Your task to perform on an android device: Open Google Chrome and open the bookmarks view Image 0: 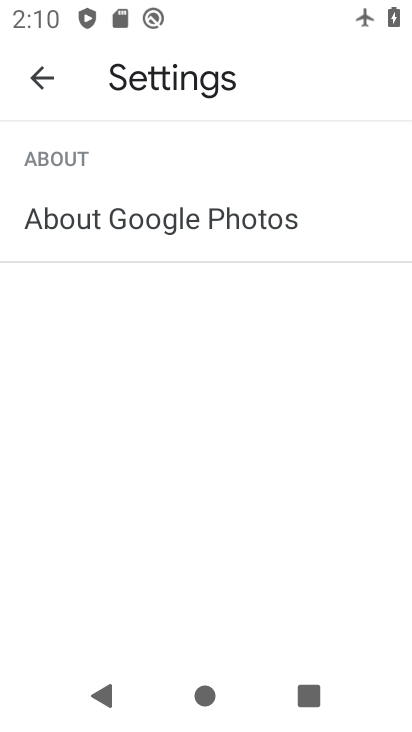
Step 0: press home button
Your task to perform on an android device: Open Google Chrome and open the bookmarks view Image 1: 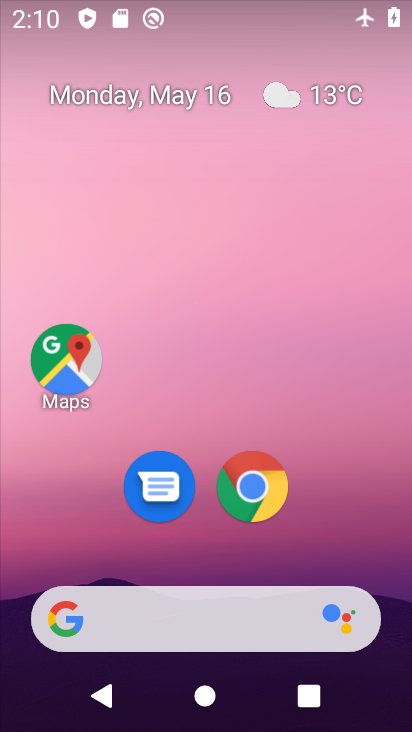
Step 1: drag from (377, 517) to (321, 56)
Your task to perform on an android device: Open Google Chrome and open the bookmarks view Image 2: 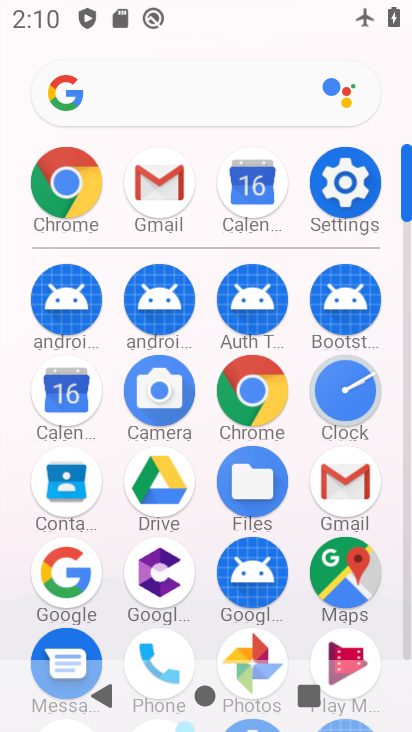
Step 2: click (46, 179)
Your task to perform on an android device: Open Google Chrome and open the bookmarks view Image 3: 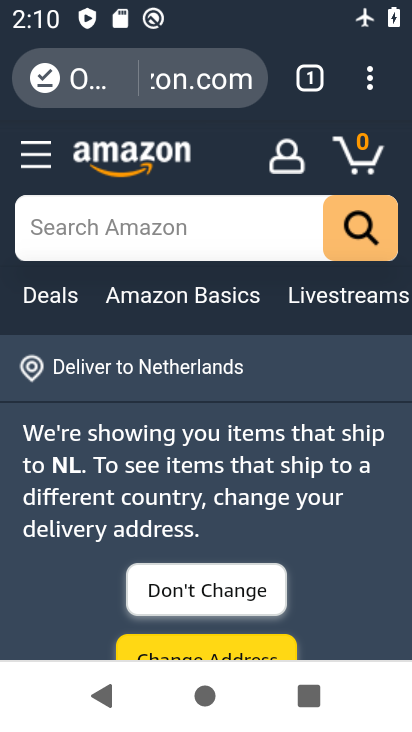
Step 3: drag from (368, 77) to (142, 308)
Your task to perform on an android device: Open Google Chrome and open the bookmarks view Image 4: 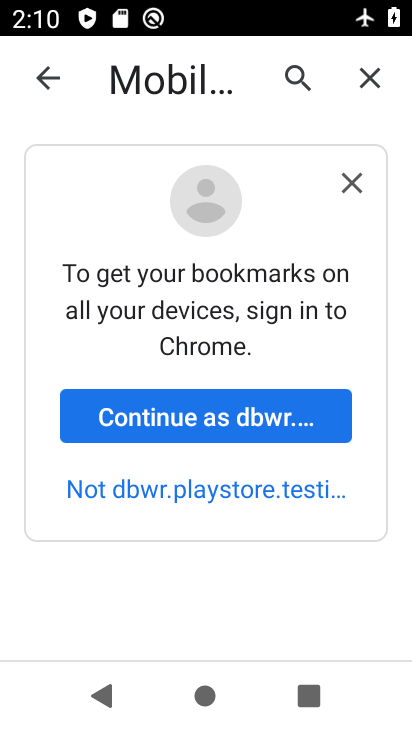
Step 4: drag from (258, 563) to (244, 219)
Your task to perform on an android device: Open Google Chrome and open the bookmarks view Image 5: 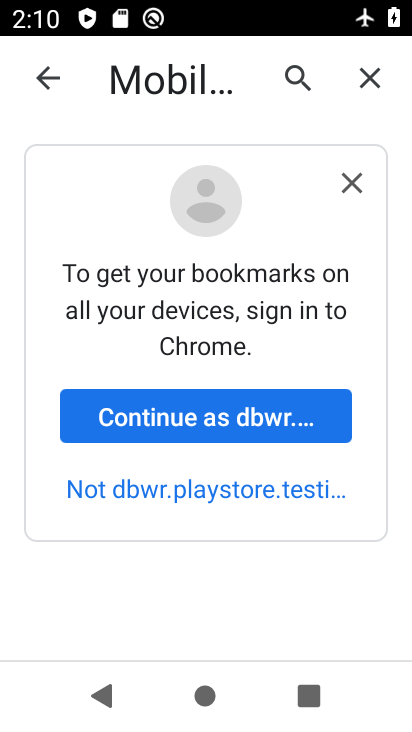
Step 5: click (247, 410)
Your task to perform on an android device: Open Google Chrome and open the bookmarks view Image 6: 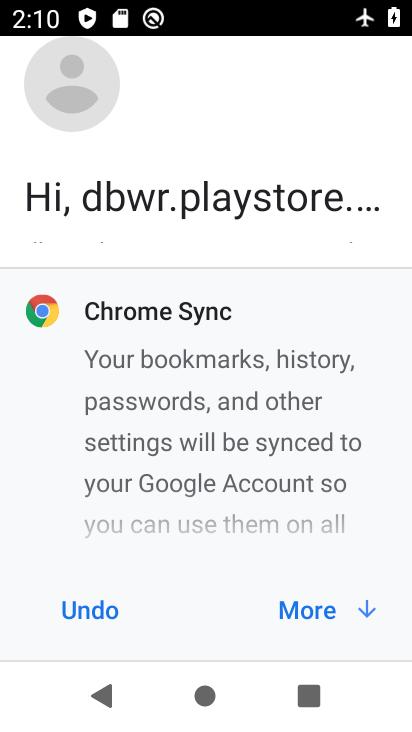
Step 6: click (317, 628)
Your task to perform on an android device: Open Google Chrome and open the bookmarks view Image 7: 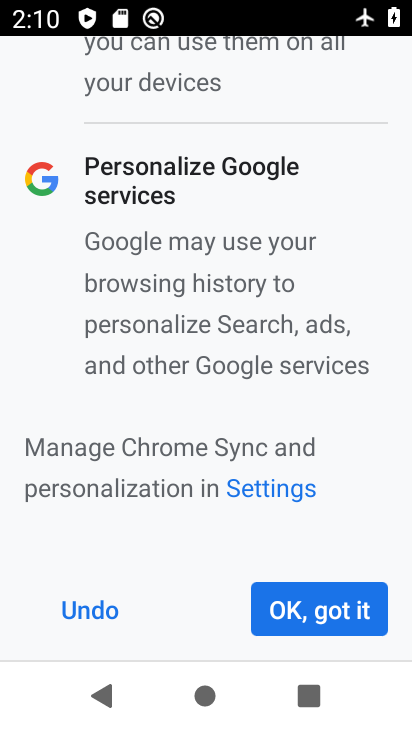
Step 7: click (319, 625)
Your task to perform on an android device: Open Google Chrome and open the bookmarks view Image 8: 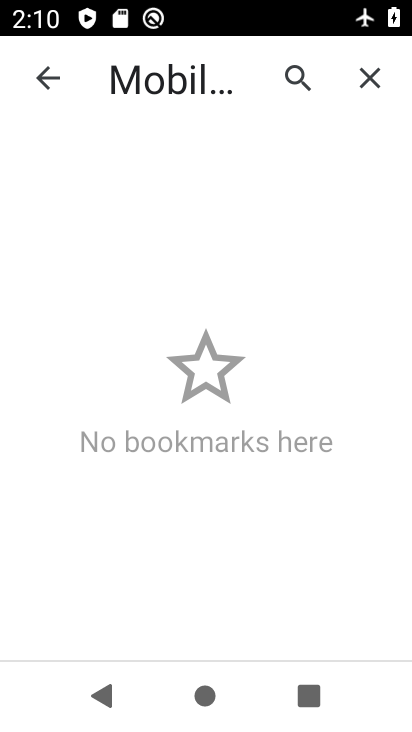
Step 8: task complete